Your task to perform on an android device: check out phone information Image 0: 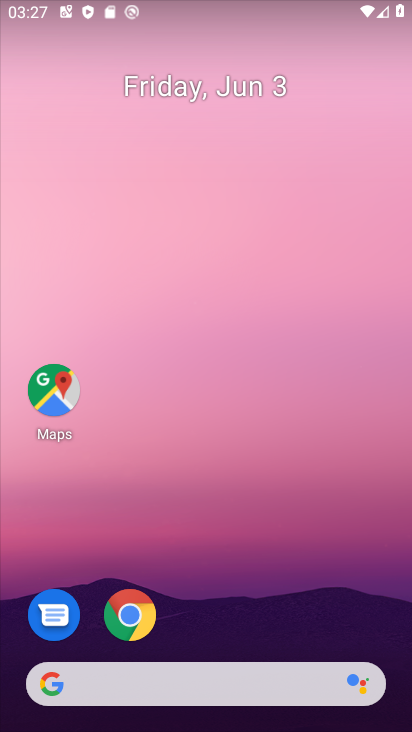
Step 0: drag from (234, 621) to (203, 170)
Your task to perform on an android device: check out phone information Image 1: 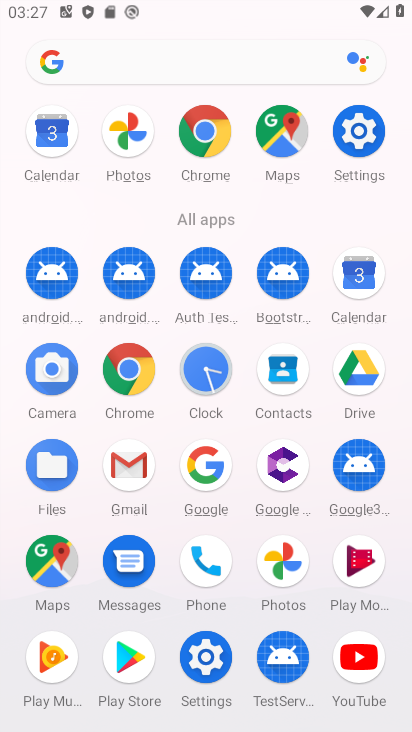
Step 1: click (367, 148)
Your task to perform on an android device: check out phone information Image 2: 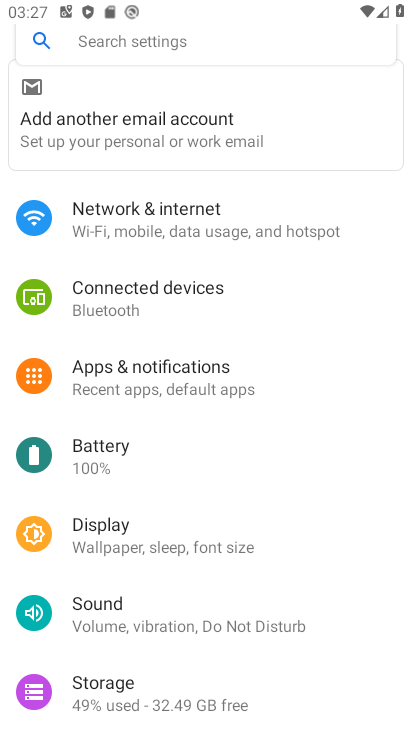
Step 2: drag from (231, 704) to (190, 340)
Your task to perform on an android device: check out phone information Image 3: 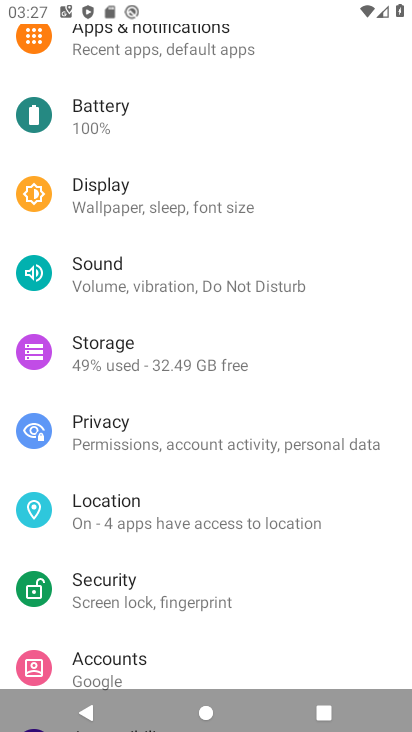
Step 3: drag from (222, 631) to (163, 301)
Your task to perform on an android device: check out phone information Image 4: 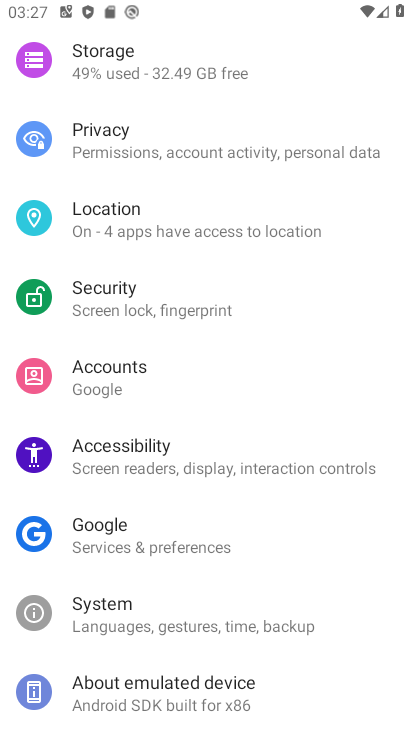
Step 4: drag from (176, 624) to (139, 382)
Your task to perform on an android device: check out phone information Image 5: 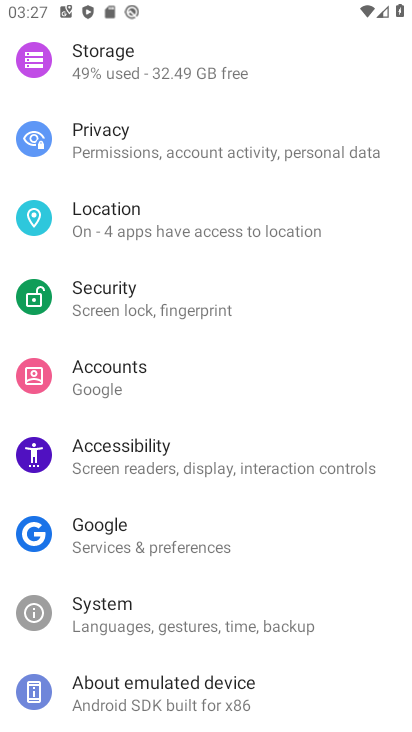
Step 5: click (175, 702)
Your task to perform on an android device: check out phone information Image 6: 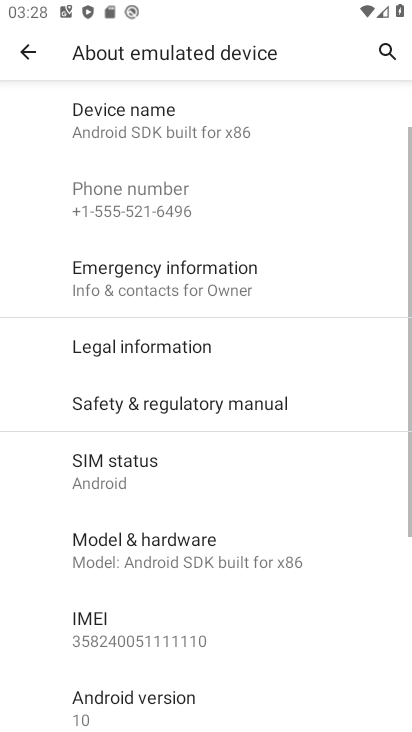
Step 6: task complete